Your task to perform on an android device: Search for Mexican restaurants on Maps Image 0: 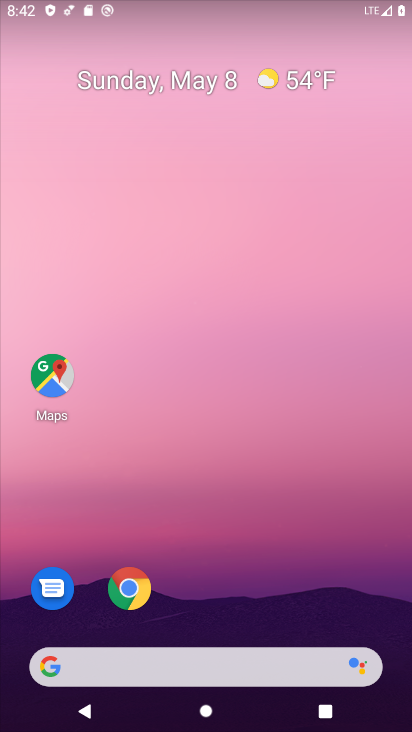
Step 0: click (37, 382)
Your task to perform on an android device: Search for Mexican restaurants on Maps Image 1: 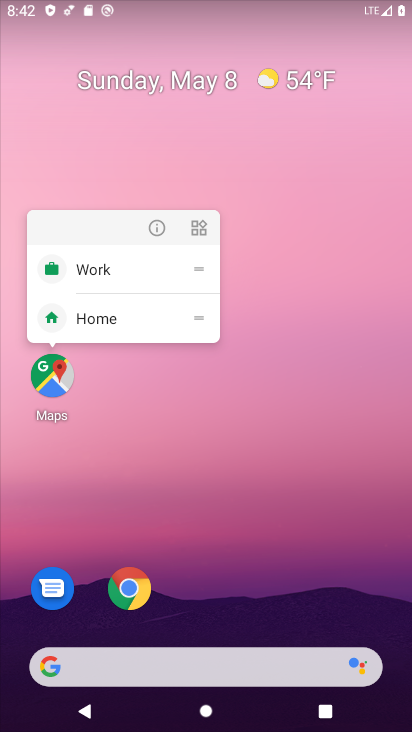
Step 1: click (156, 224)
Your task to perform on an android device: Search for Mexican restaurants on Maps Image 2: 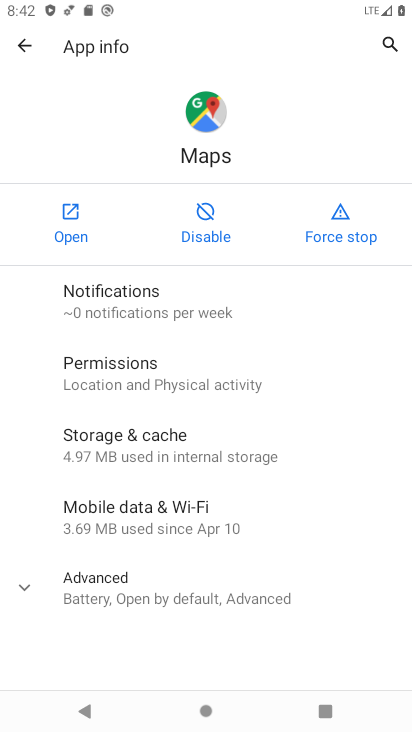
Step 2: click (63, 221)
Your task to perform on an android device: Search for Mexican restaurants on Maps Image 3: 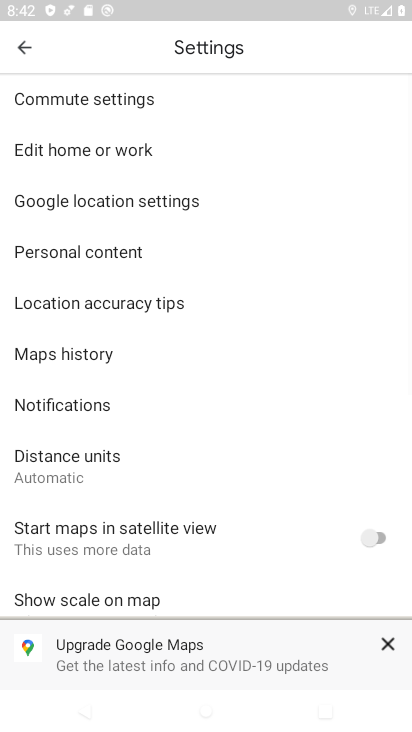
Step 3: click (389, 640)
Your task to perform on an android device: Search for Mexican restaurants on Maps Image 4: 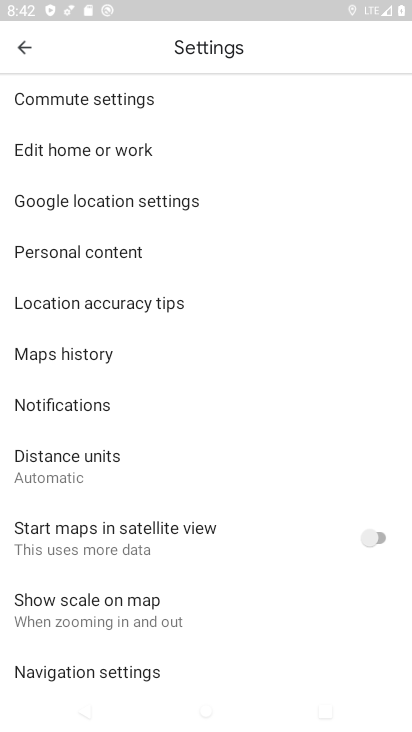
Step 4: press back button
Your task to perform on an android device: Search for Mexican restaurants on Maps Image 5: 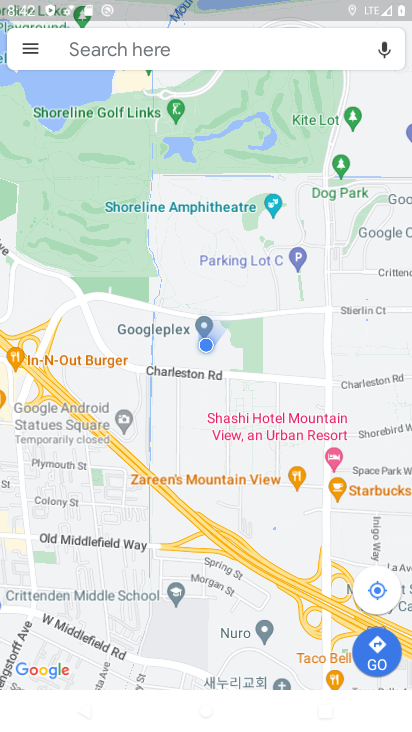
Step 5: click (94, 60)
Your task to perform on an android device: Search for Mexican restaurants on Maps Image 6: 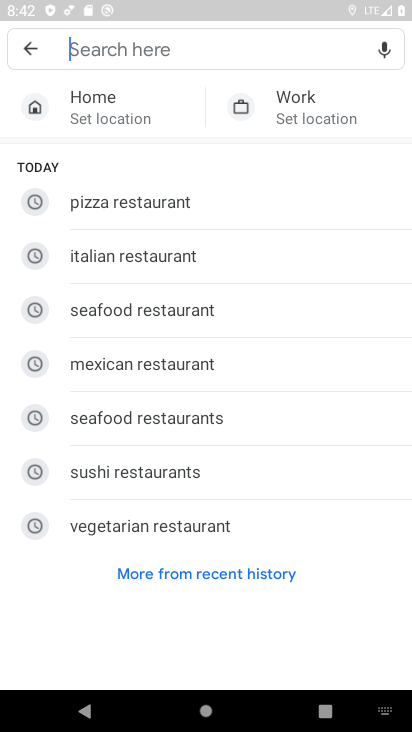
Step 6: click (211, 350)
Your task to perform on an android device: Search for Mexican restaurants on Maps Image 7: 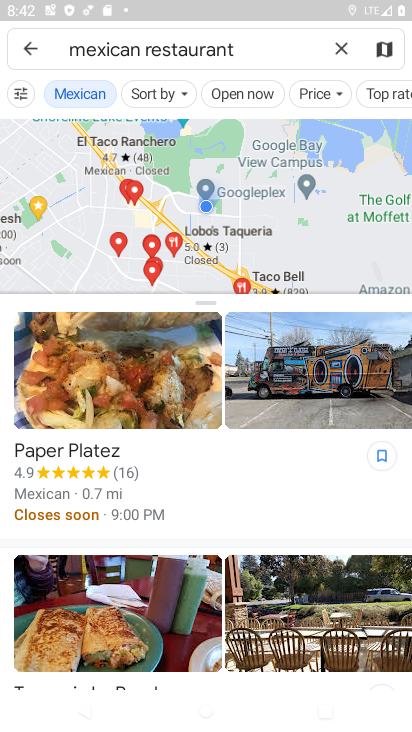
Step 7: task complete